Your task to perform on an android device: change the clock style Image 0: 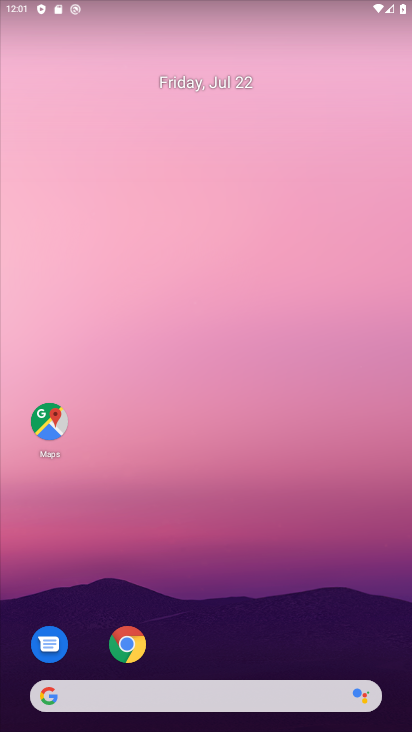
Step 0: press home button
Your task to perform on an android device: change the clock style Image 1: 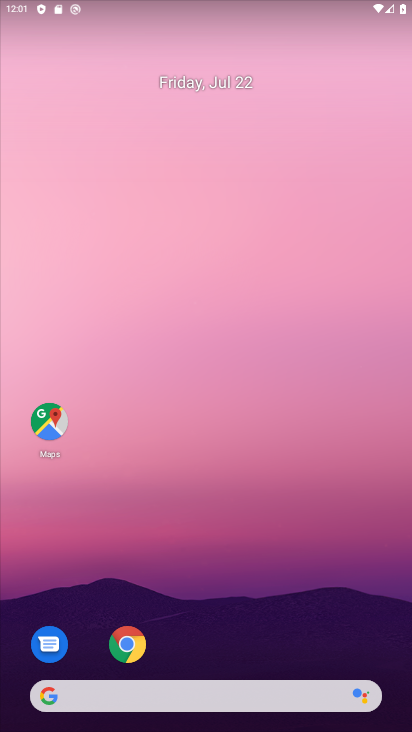
Step 1: drag from (224, 676) to (224, 223)
Your task to perform on an android device: change the clock style Image 2: 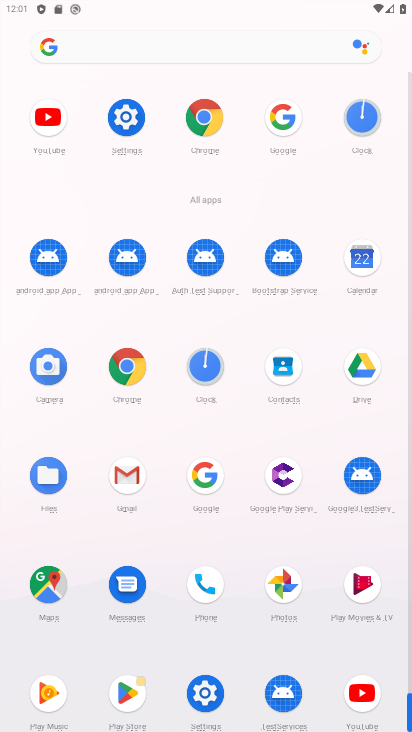
Step 2: click (373, 130)
Your task to perform on an android device: change the clock style Image 3: 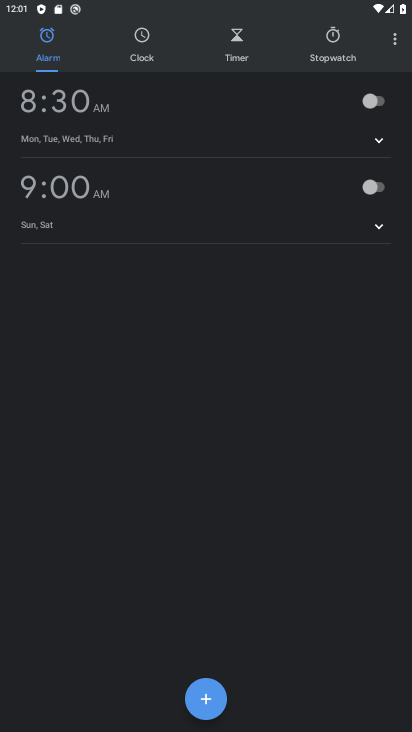
Step 3: click (391, 47)
Your task to perform on an android device: change the clock style Image 4: 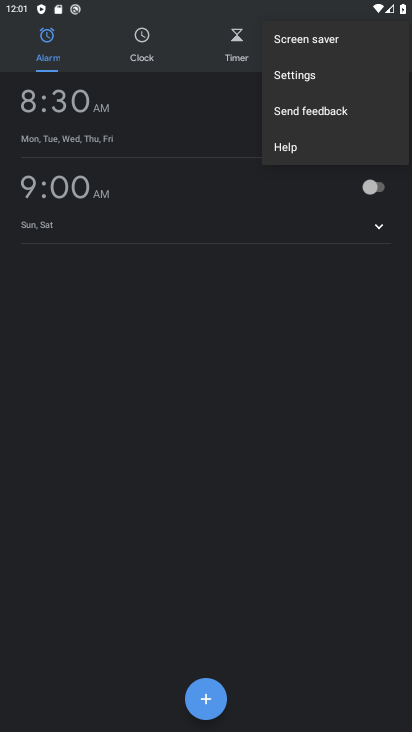
Step 4: click (323, 88)
Your task to perform on an android device: change the clock style Image 5: 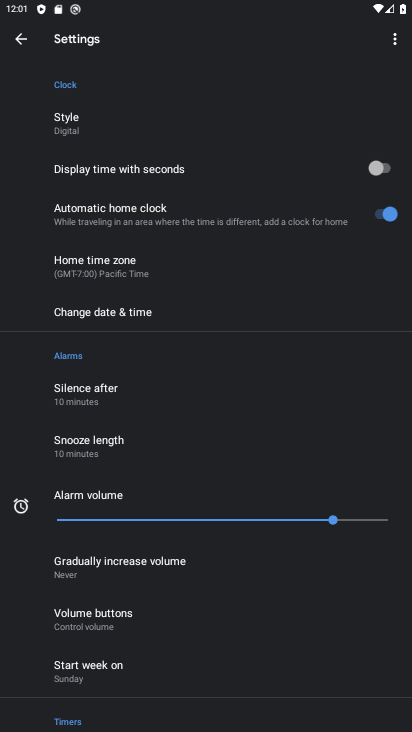
Step 5: click (103, 133)
Your task to perform on an android device: change the clock style Image 6: 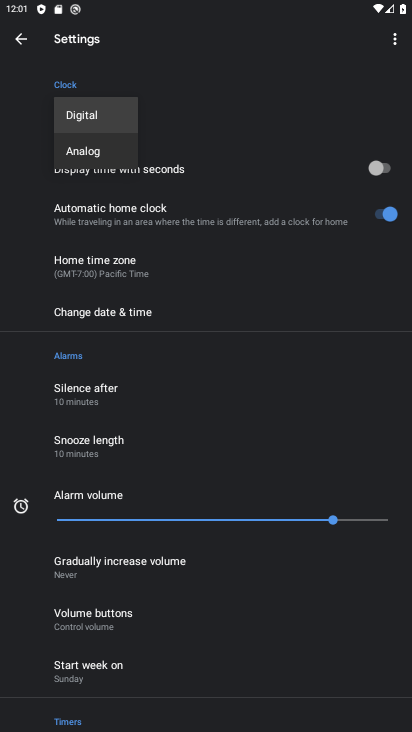
Step 6: click (101, 149)
Your task to perform on an android device: change the clock style Image 7: 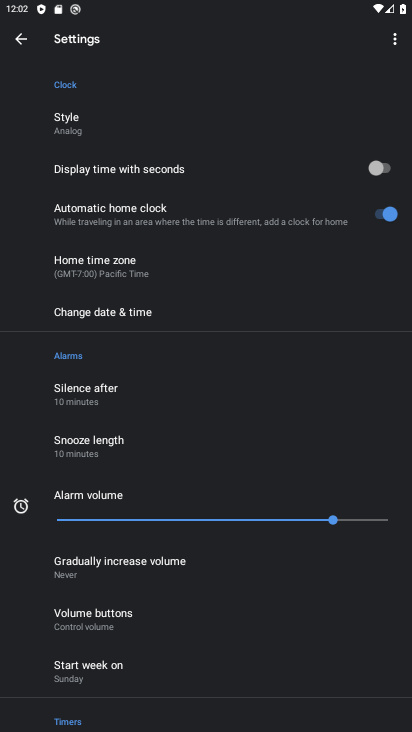
Step 7: task complete